Your task to perform on an android device: What is the recent news? Image 0: 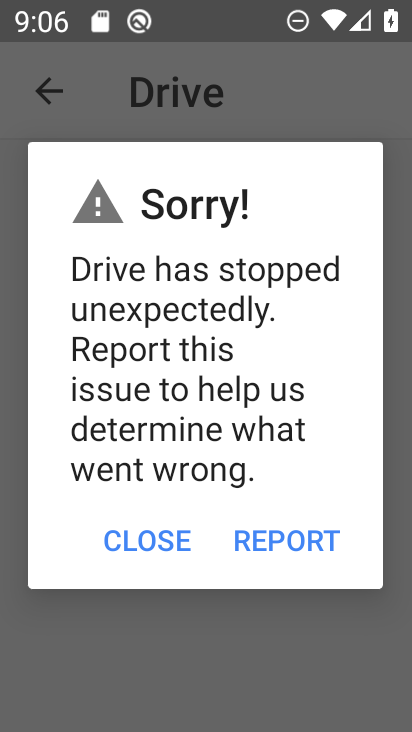
Step 0: press home button
Your task to perform on an android device: What is the recent news? Image 1: 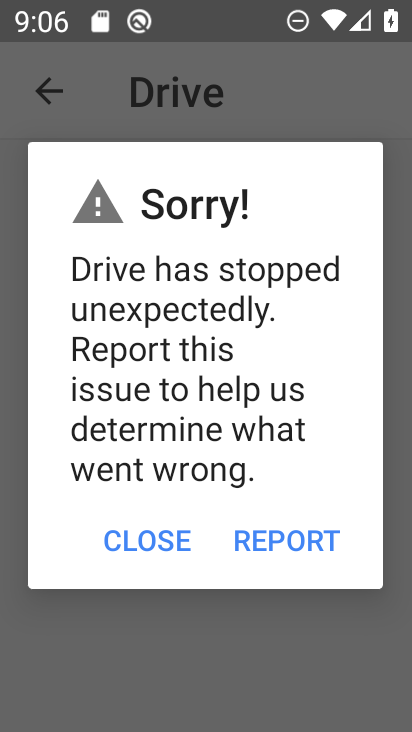
Step 1: task complete